Your task to perform on an android device: Open Wikipedia Image 0: 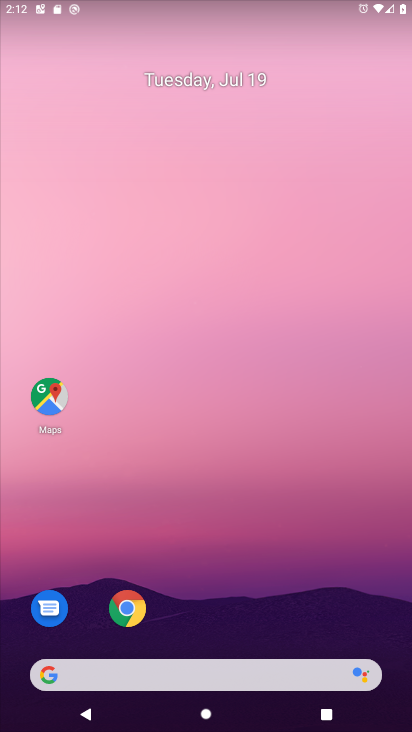
Step 0: drag from (178, 620) to (219, 147)
Your task to perform on an android device: Open Wikipedia Image 1: 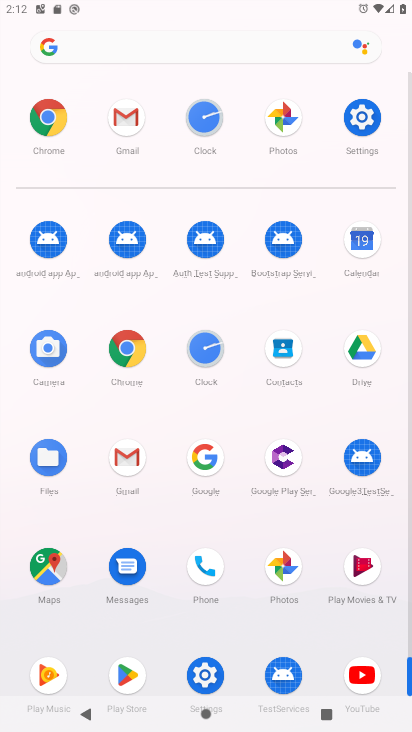
Step 1: click (135, 368)
Your task to perform on an android device: Open Wikipedia Image 2: 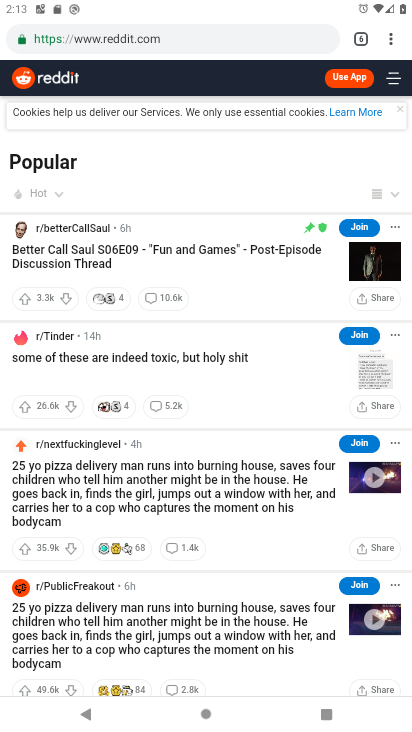
Step 2: click (360, 42)
Your task to perform on an android device: Open Wikipedia Image 3: 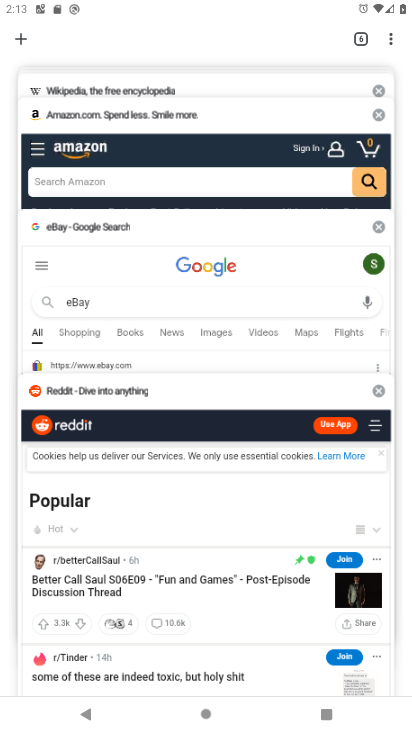
Step 3: click (56, 91)
Your task to perform on an android device: Open Wikipedia Image 4: 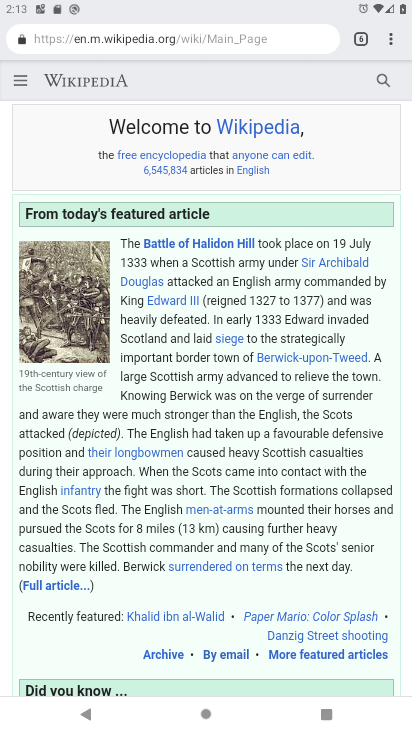
Step 4: task complete